Your task to perform on an android device: What's the weather going to be this weekend? Image 0: 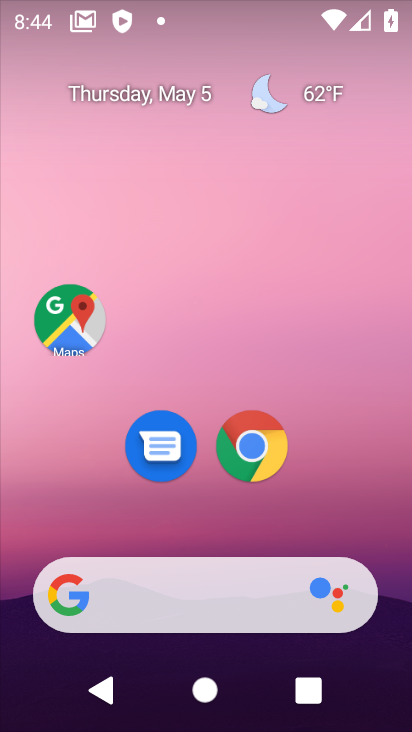
Step 0: drag from (264, 642) to (322, 188)
Your task to perform on an android device: What's the weather going to be this weekend? Image 1: 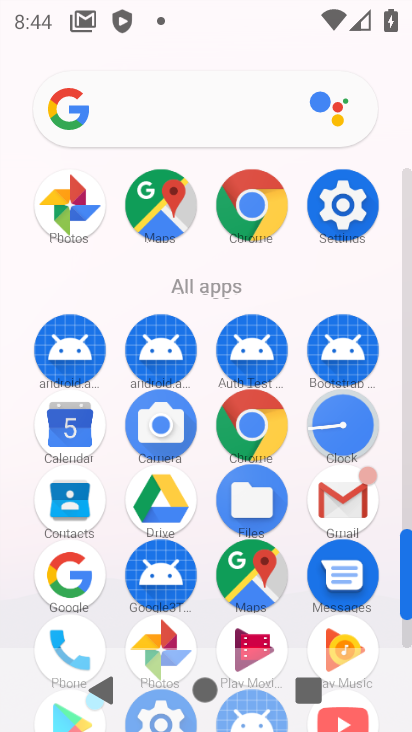
Step 1: drag from (177, 106) to (184, 41)
Your task to perform on an android device: What's the weather going to be this weekend? Image 2: 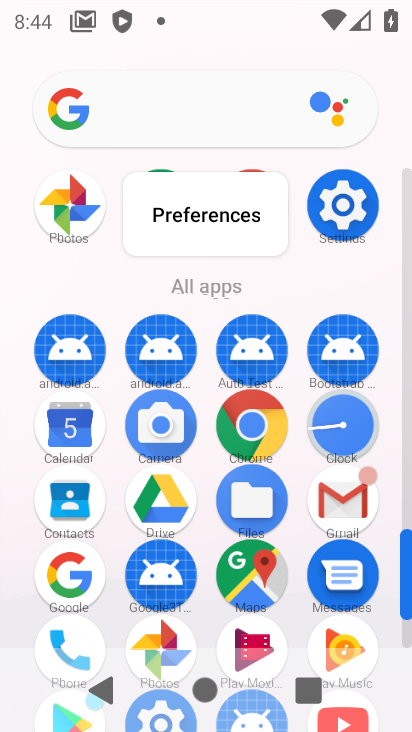
Step 2: click (160, 131)
Your task to perform on an android device: What's the weather going to be this weekend? Image 3: 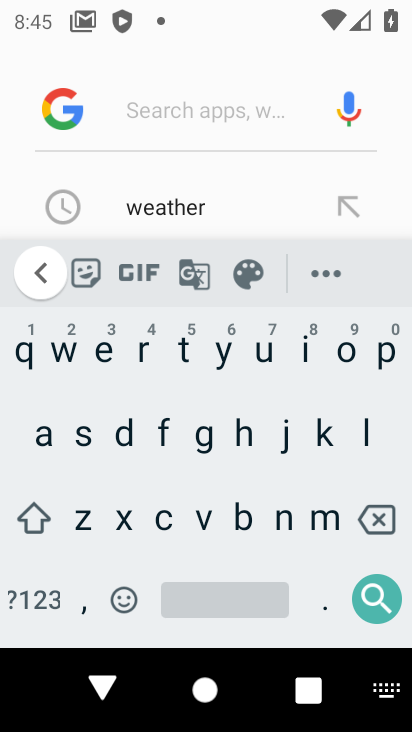
Step 3: click (146, 201)
Your task to perform on an android device: What's the weather going to be this weekend? Image 4: 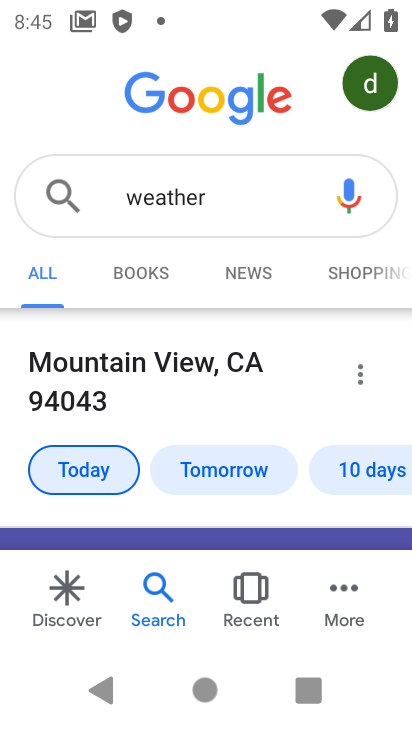
Step 4: click (338, 472)
Your task to perform on an android device: What's the weather going to be this weekend? Image 5: 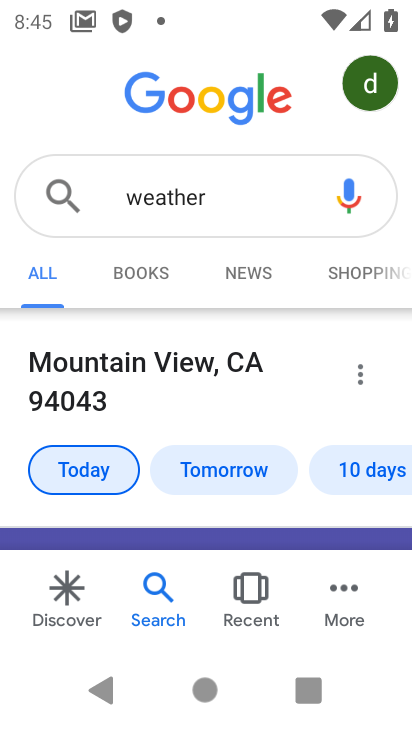
Step 5: click (342, 464)
Your task to perform on an android device: What's the weather going to be this weekend? Image 6: 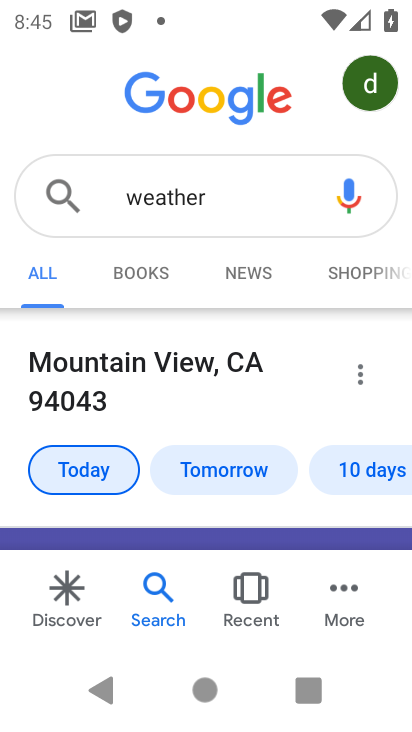
Step 6: drag from (294, 391) to (246, 211)
Your task to perform on an android device: What's the weather going to be this weekend? Image 7: 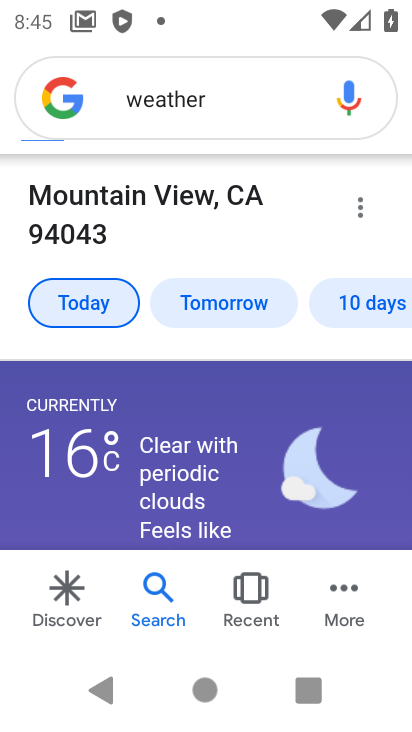
Step 7: click (225, 444)
Your task to perform on an android device: What's the weather going to be this weekend? Image 8: 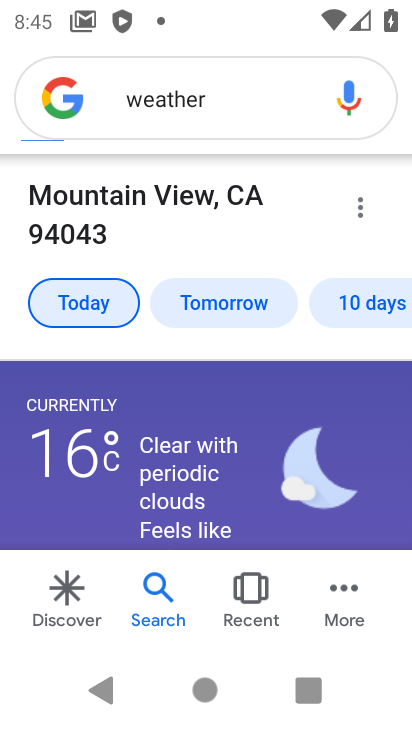
Step 8: drag from (216, 472) to (246, 241)
Your task to perform on an android device: What's the weather going to be this weekend? Image 9: 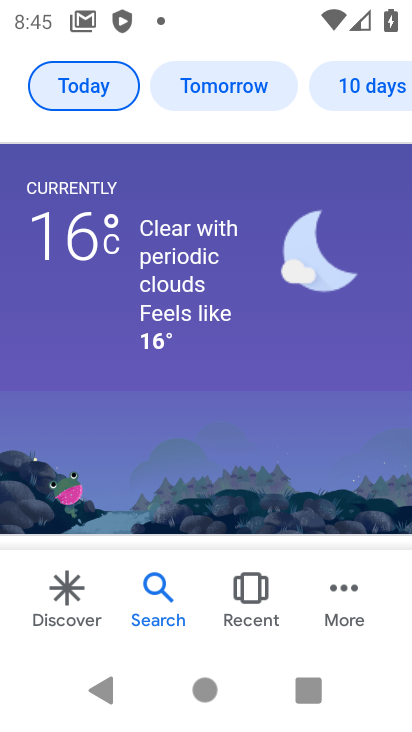
Step 9: drag from (233, 413) to (249, 281)
Your task to perform on an android device: What's the weather going to be this weekend? Image 10: 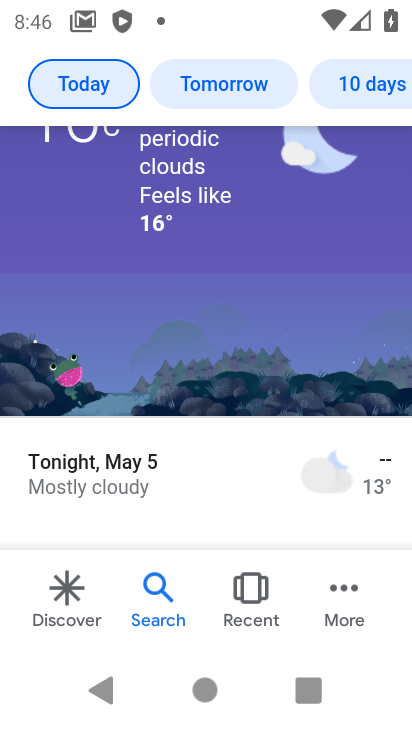
Step 10: drag from (198, 528) to (279, 299)
Your task to perform on an android device: What's the weather going to be this weekend? Image 11: 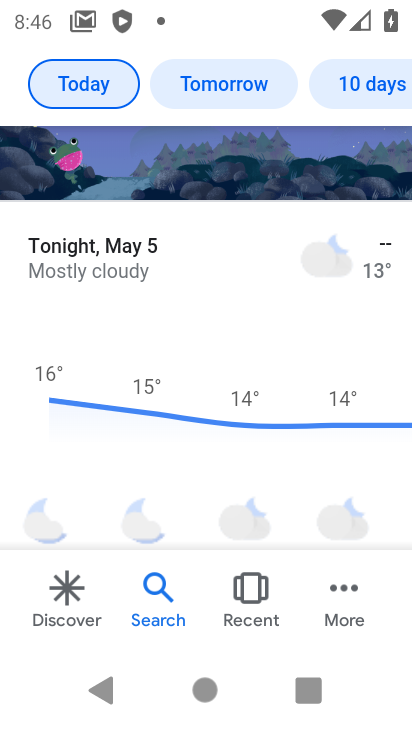
Step 11: click (378, 77)
Your task to perform on an android device: What's the weather going to be this weekend? Image 12: 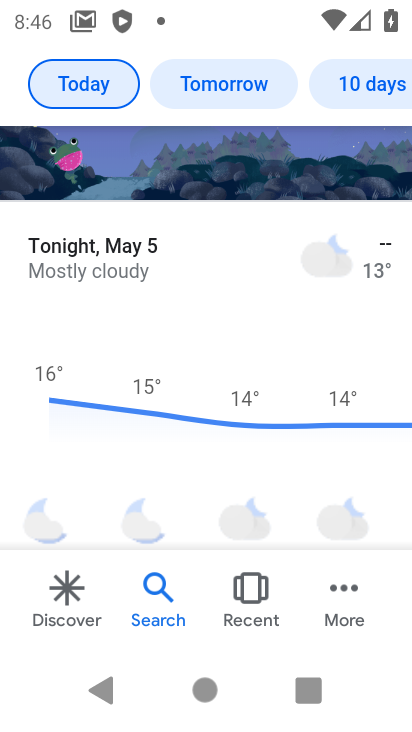
Step 12: click (379, 76)
Your task to perform on an android device: What's the weather going to be this weekend? Image 13: 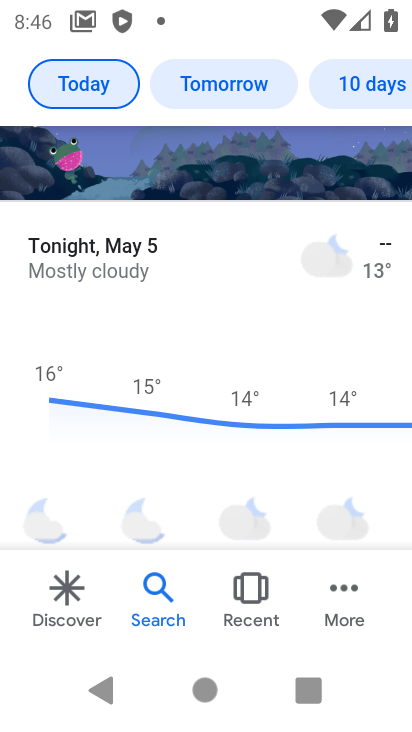
Step 13: task complete